Your task to perform on an android device: change the clock display to show seconds Image 0: 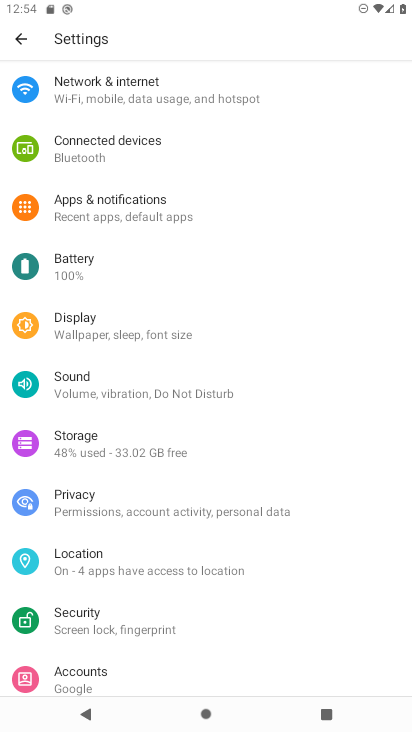
Step 0: press home button
Your task to perform on an android device: change the clock display to show seconds Image 1: 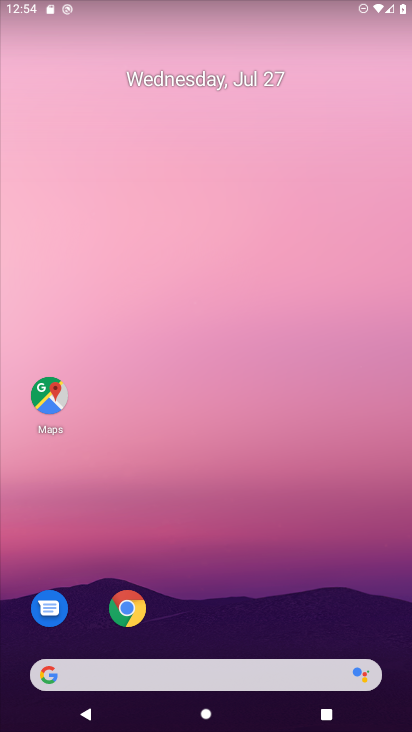
Step 1: drag from (269, 643) to (210, 4)
Your task to perform on an android device: change the clock display to show seconds Image 2: 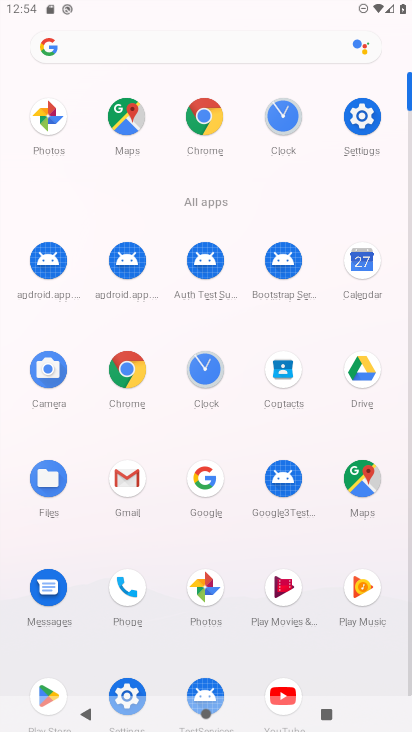
Step 2: click (202, 383)
Your task to perform on an android device: change the clock display to show seconds Image 3: 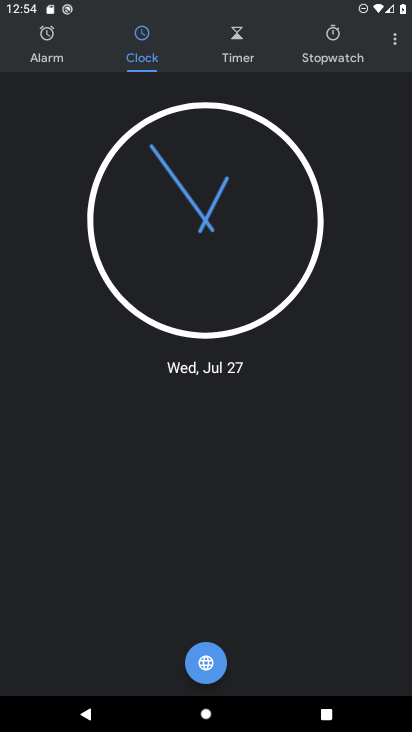
Step 3: click (399, 44)
Your task to perform on an android device: change the clock display to show seconds Image 4: 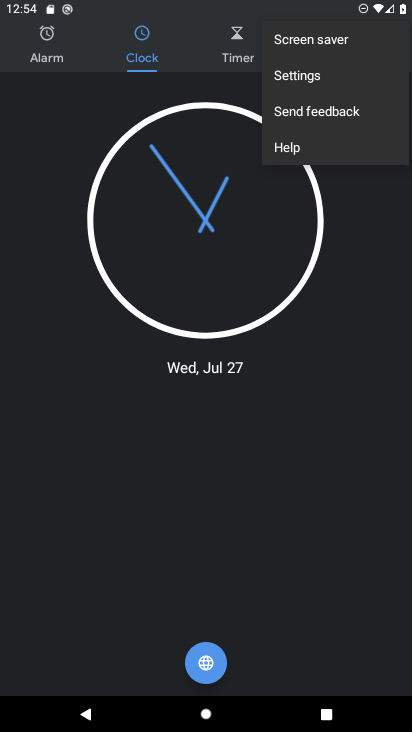
Step 4: click (294, 77)
Your task to perform on an android device: change the clock display to show seconds Image 5: 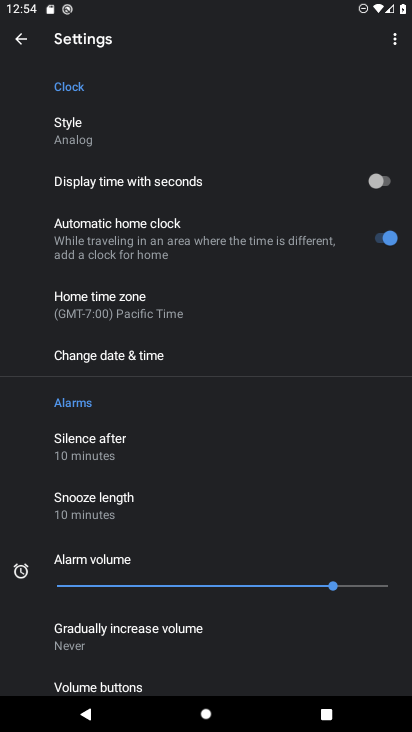
Step 5: click (97, 143)
Your task to perform on an android device: change the clock display to show seconds Image 6: 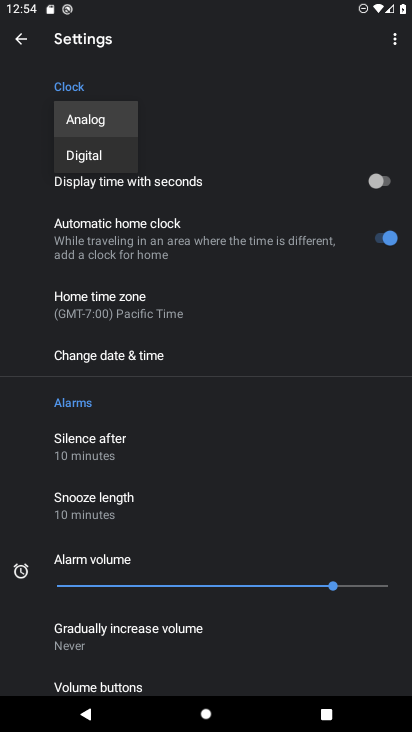
Step 6: click (103, 155)
Your task to perform on an android device: change the clock display to show seconds Image 7: 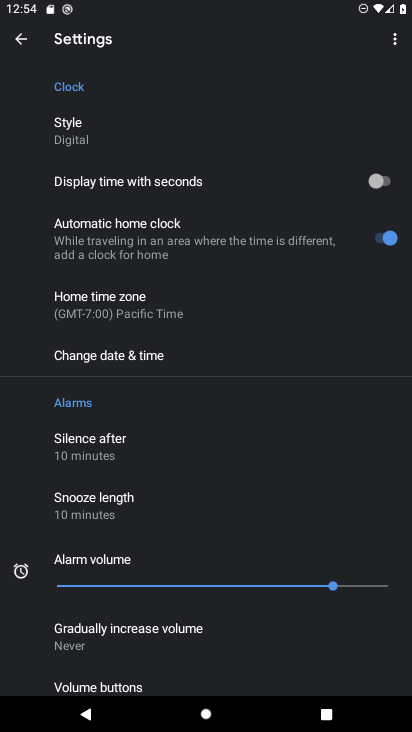
Step 7: click (398, 181)
Your task to perform on an android device: change the clock display to show seconds Image 8: 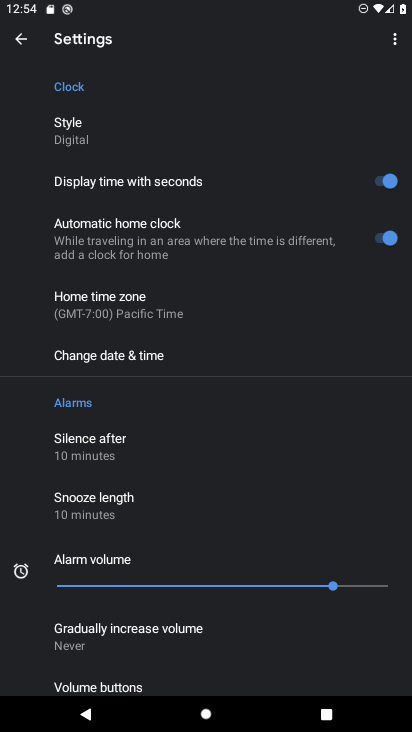
Step 8: task complete